Your task to perform on an android device: see sites visited before in the chrome app Image 0: 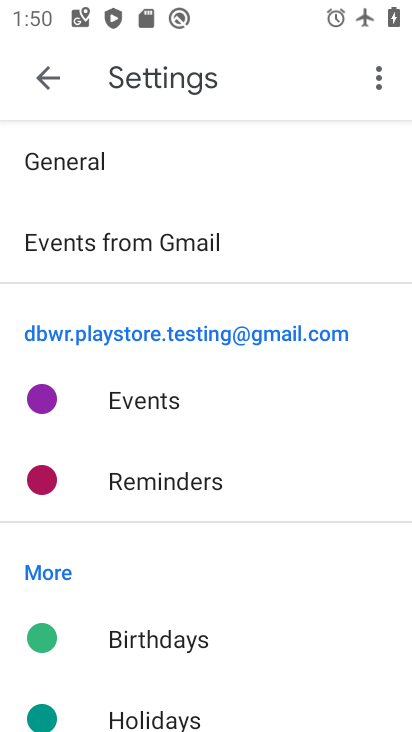
Step 0: press home button
Your task to perform on an android device: see sites visited before in the chrome app Image 1: 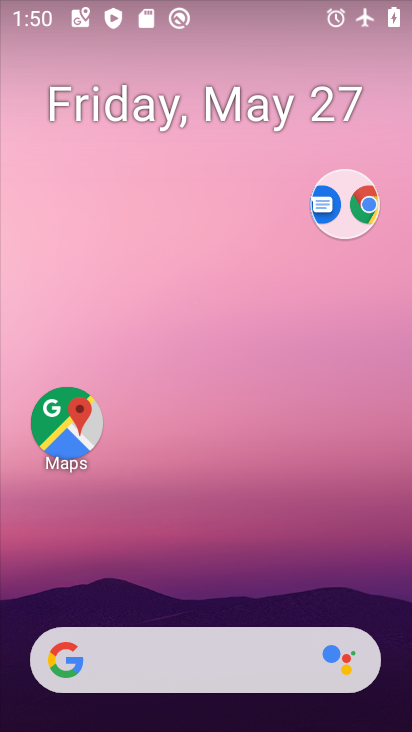
Step 1: drag from (230, 605) to (293, 203)
Your task to perform on an android device: see sites visited before in the chrome app Image 2: 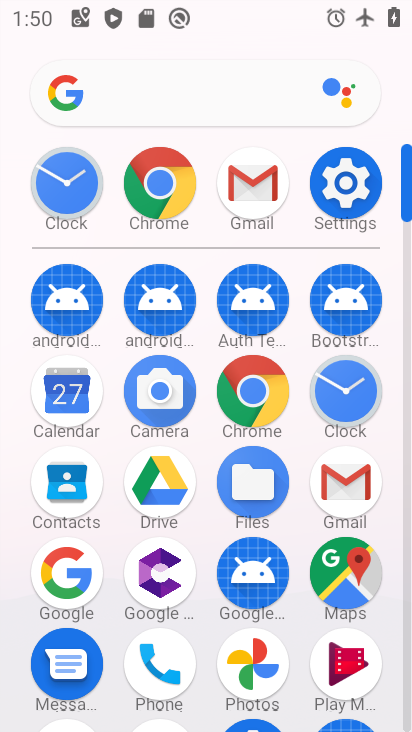
Step 2: click (257, 402)
Your task to perform on an android device: see sites visited before in the chrome app Image 3: 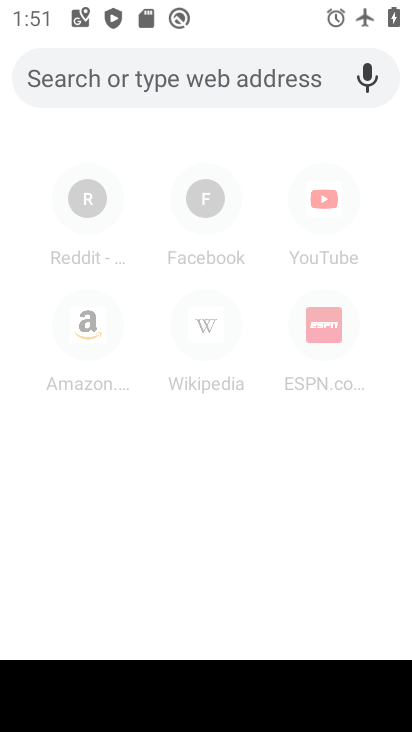
Step 3: click (245, 498)
Your task to perform on an android device: see sites visited before in the chrome app Image 4: 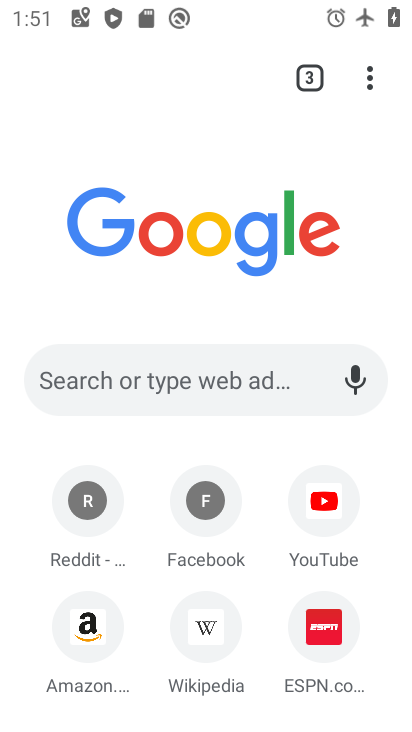
Step 4: click (372, 84)
Your task to perform on an android device: see sites visited before in the chrome app Image 5: 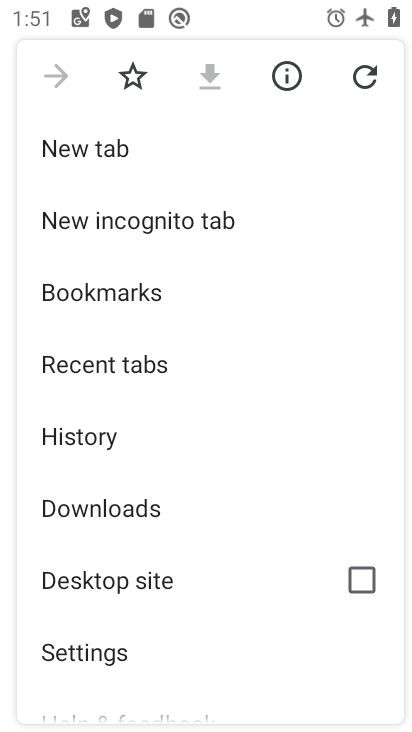
Step 5: click (99, 435)
Your task to perform on an android device: see sites visited before in the chrome app Image 6: 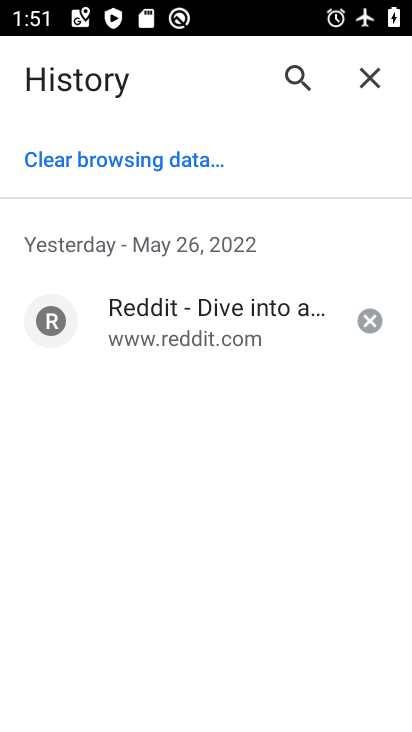
Step 6: task complete